Your task to perform on an android device: turn off wifi Image 0: 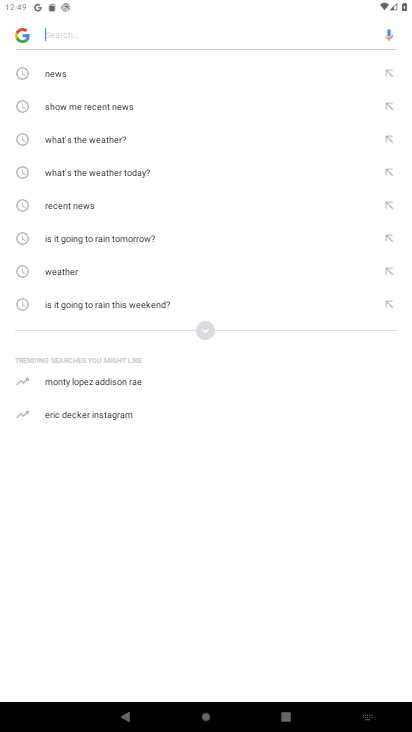
Step 0: press home button
Your task to perform on an android device: turn off wifi Image 1: 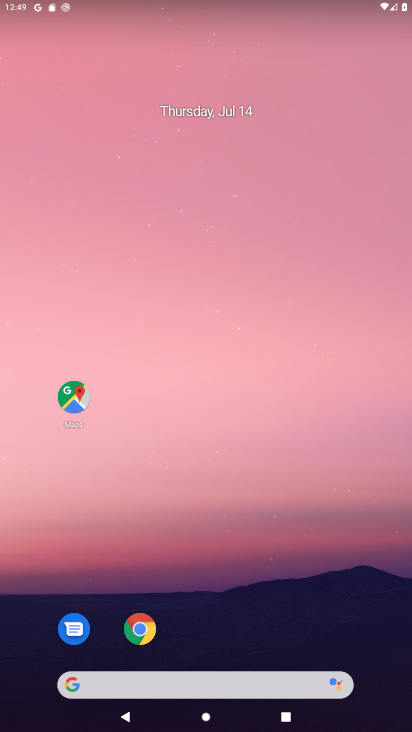
Step 1: drag from (283, 429) to (170, 6)
Your task to perform on an android device: turn off wifi Image 2: 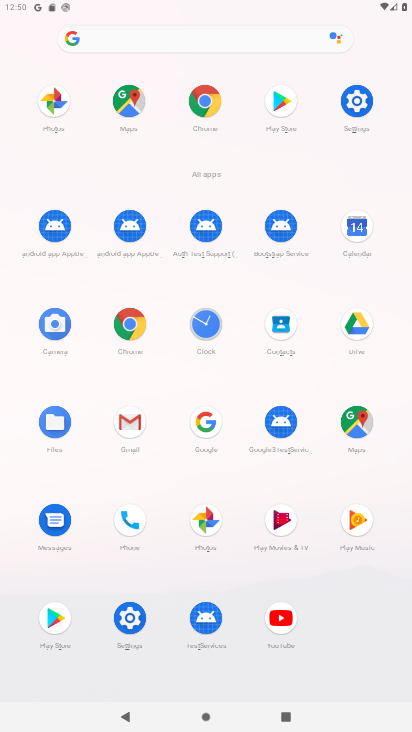
Step 2: click (356, 111)
Your task to perform on an android device: turn off wifi Image 3: 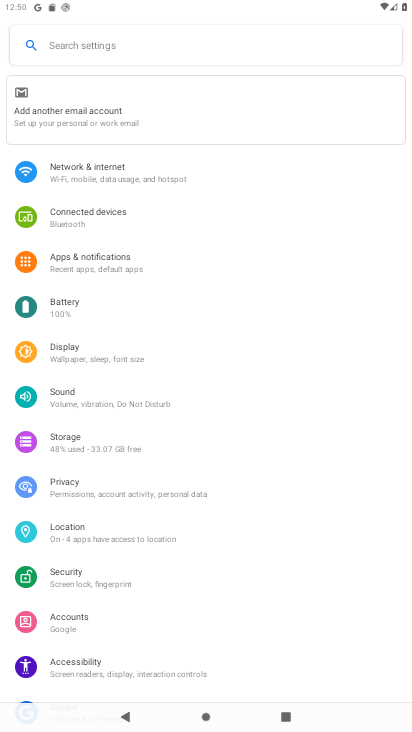
Step 3: click (66, 171)
Your task to perform on an android device: turn off wifi Image 4: 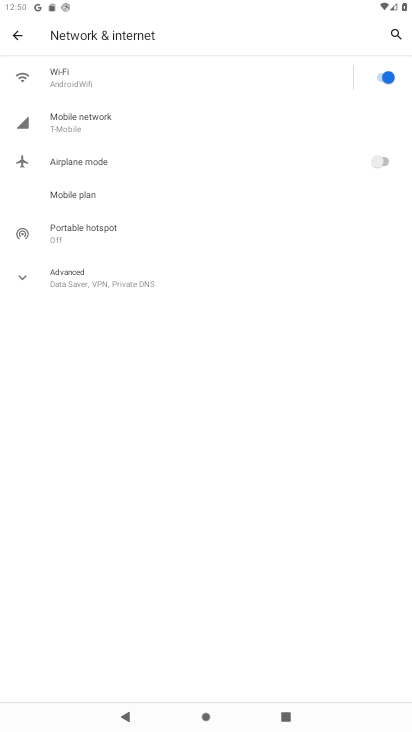
Step 4: click (384, 69)
Your task to perform on an android device: turn off wifi Image 5: 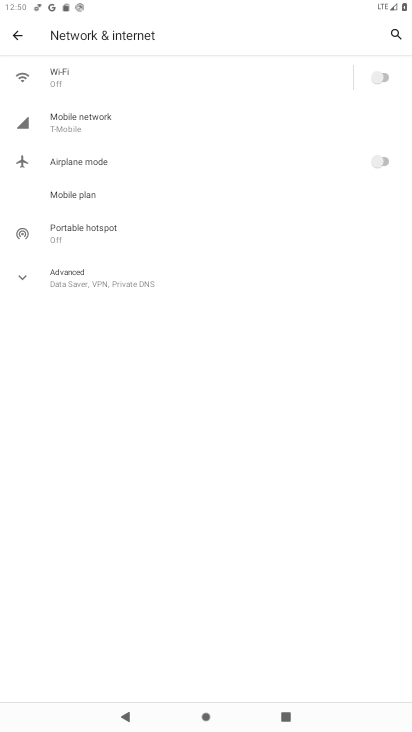
Step 5: task complete